Your task to perform on an android device: Open the Play Movies app and select the watchlist tab. Image 0: 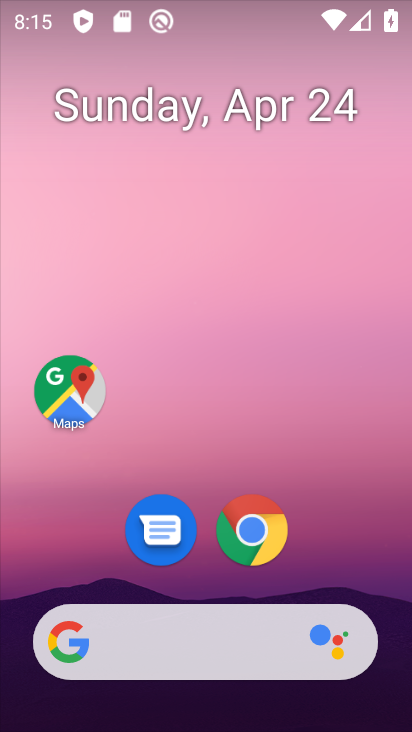
Step 0: drag from (186, 591) to (310, 65)
Your task to perform on an android device: Open the Play Movies app and select the watchlist tab. Image 1: 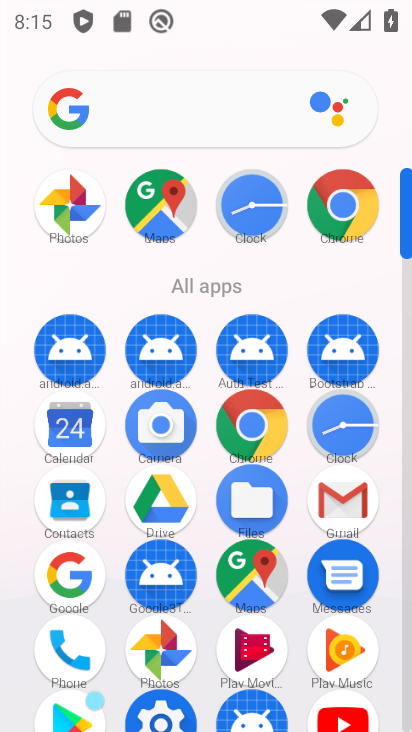
Step 1: drag from (205, 609) to (272, 259)
Your task to perform on an android device: Open the Play Movies app and select the watchlist tab. Image 2: 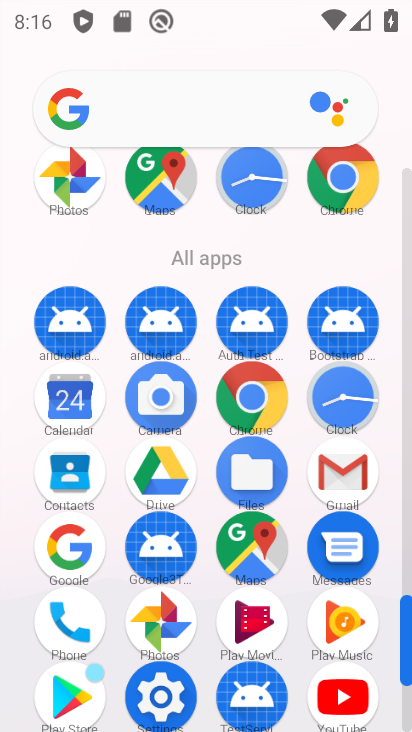
Step 2: click (256, 630)
Your task to perform on an android device: Open the Play Movies app and select the watchlist tab. Image 3: 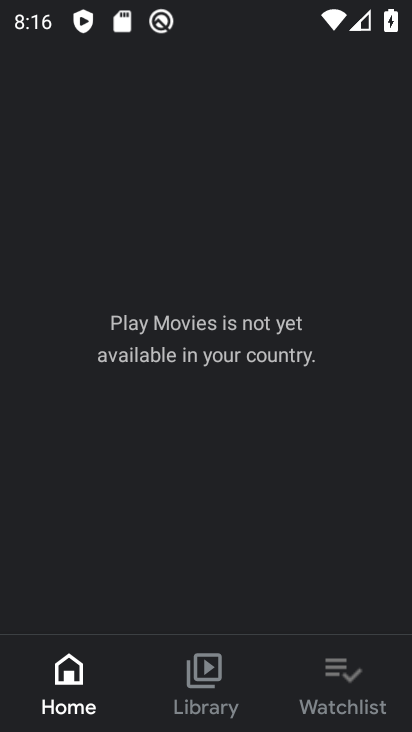
Step 3: click (369, 686)
Your task to perform on an android device: Open the Play Movies app and select the watchlist tab. Image 4: 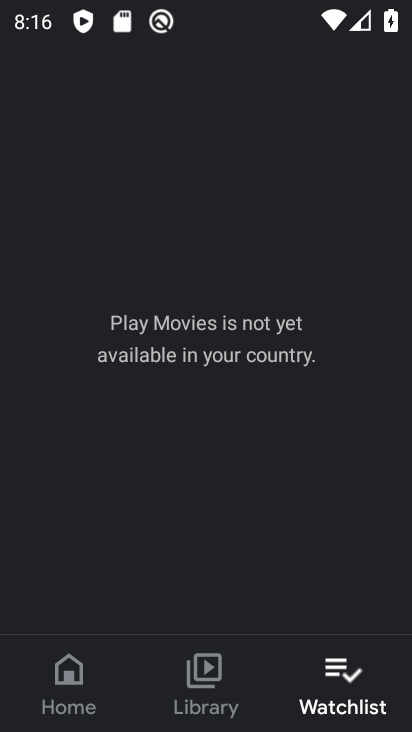
Step 4: click (369, 686)
Your task to perform on an android device: Open the Play Movies app and select the watchlist tab. Image 5: 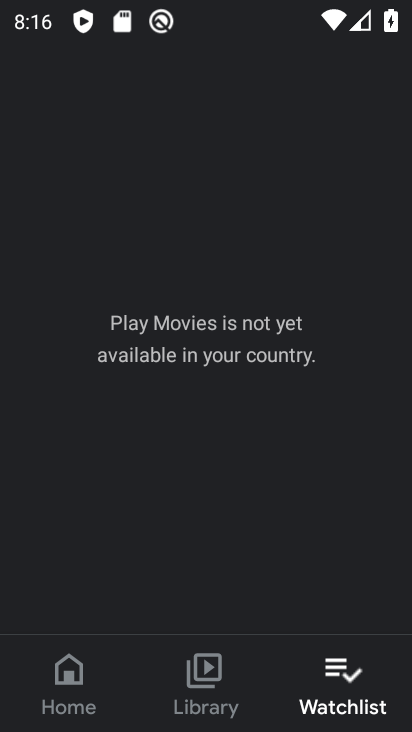
Step 5: task complete